Your task to perform on an android device: Open Youtube and go to "Your channel" Image 0: 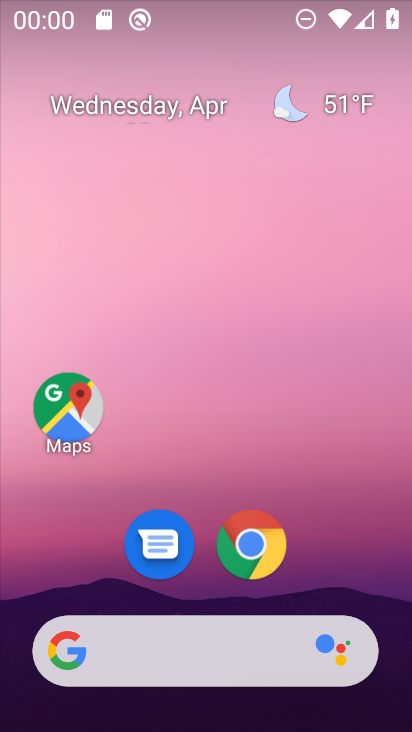
Step 0: drag from (317, 494) to (272, 103)
Your task to perform on an android device: Open Youtube and go to "Your channel" Image 1: 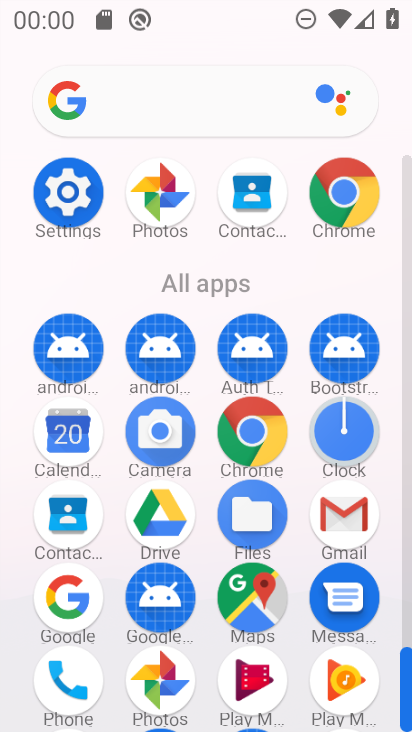
Step 1: drag from (389, 580) to (345, 222)
Your task to perform on an android device: Open Youtube and go to "Your channel" Image 2: 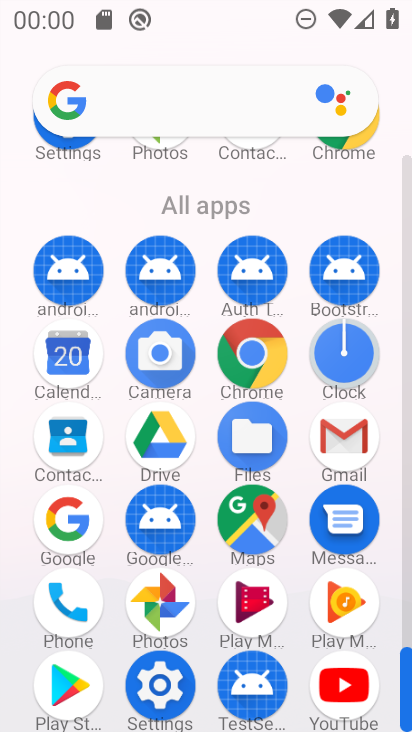
Step 2: click (331, 695)
Your task to perform on an android device: Open Youtube and go to "Your channel" Image 3: 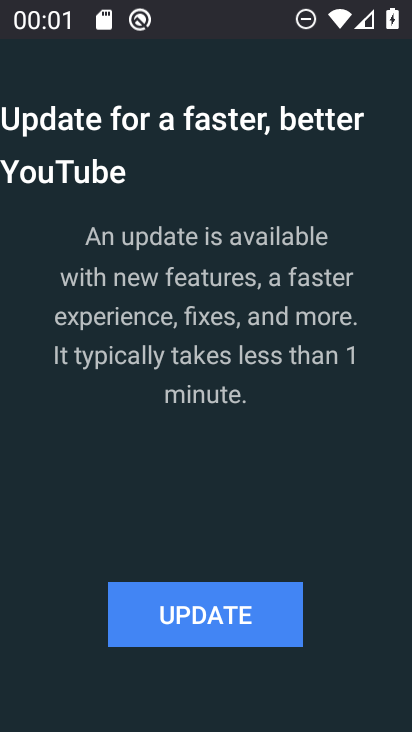
Step 3: click (246, 619)
Your task to perform on an android device: Open Youtube and go to "Your channel" Image 4: 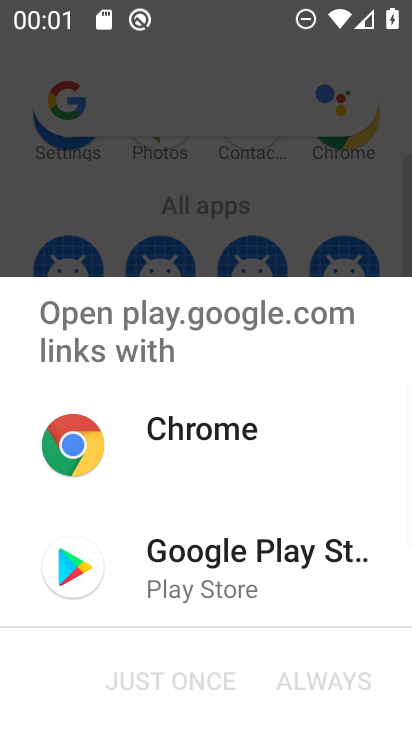
Step 4: click (220, 563)
Your task to perform on an android device: Open Youtube and go to "Your channel" Image 5: 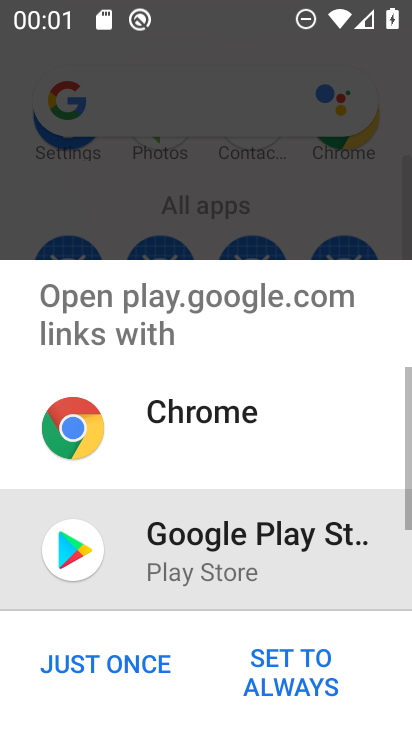
Step 5: click (140, 669)
Your task to perform on an android device: Open Youtube and go to "Your channel" Image 6: 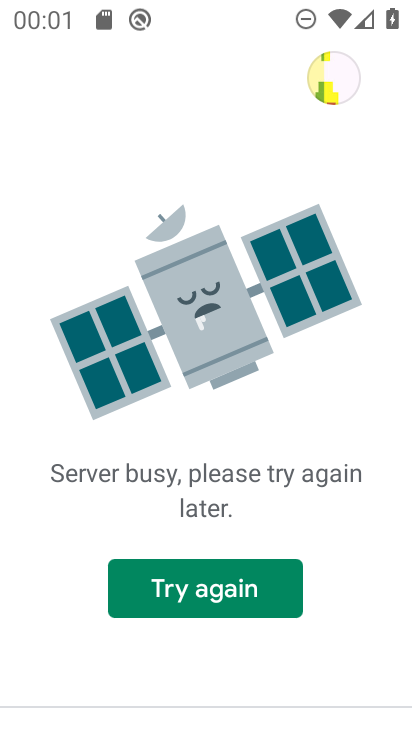
Step 6: task complete